Your task to perform on an android device: Go to internet settings Image 0: 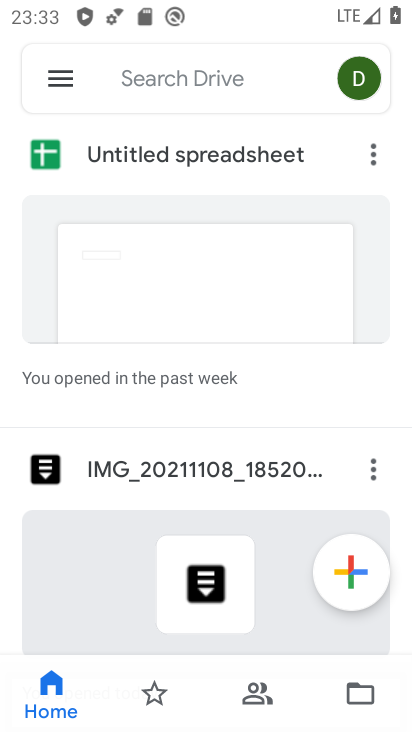
Step 0: press home button
Your task to perform on an android device: Go to internet settings Image 1: 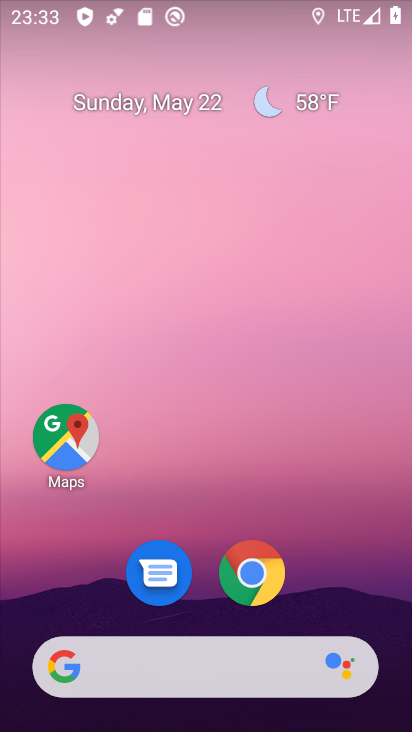
Step 1: drag from (206, 621) to (217, 1)
Your task to perform on an android device: Go to internet settings Image 2: 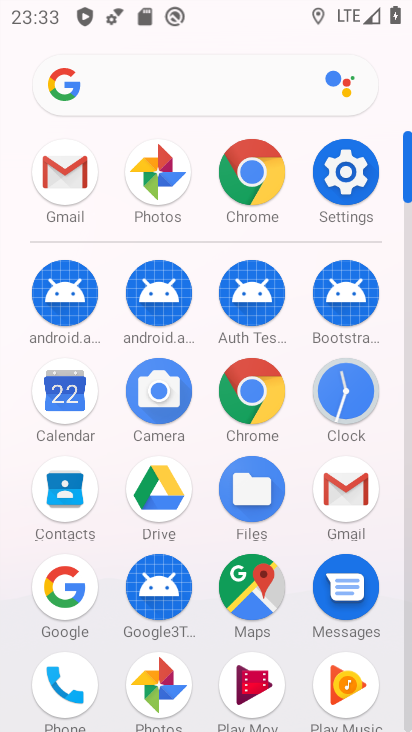
Step 2: click (356, 186)
Your task to perform on an android device: Go to internet settings Image 3: 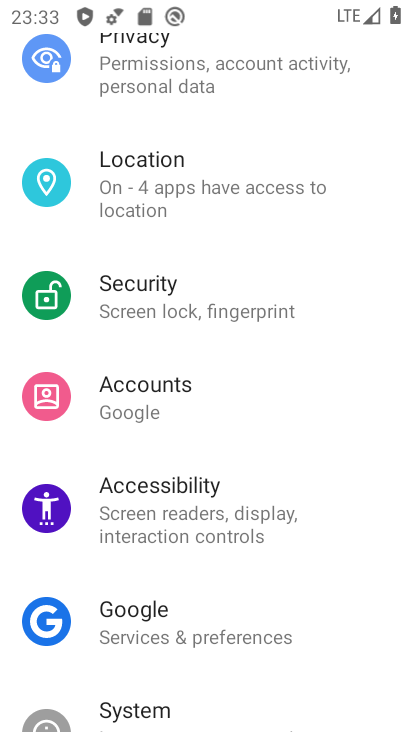
Step 3: drag from (262, 256) to (224, 653)
Your task to perform on an android device: Go to internet settings Image 4: 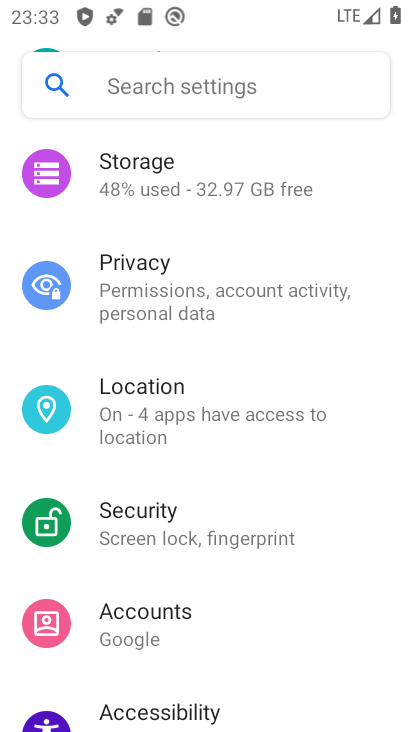
Step 4: drag from (244, 259) to (235, 458)
Your task to perform on an android device: Go to internet settings Image 5: 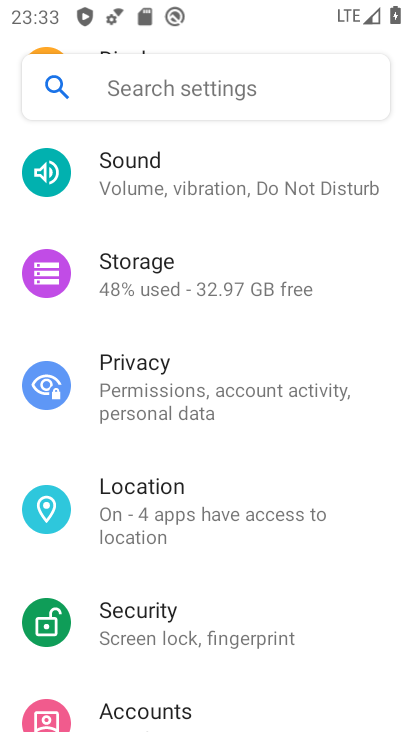
Step 5: drag from (205, 263) to (193, 603)
Your task to perform on an android device: Go to internet settings Image 6: 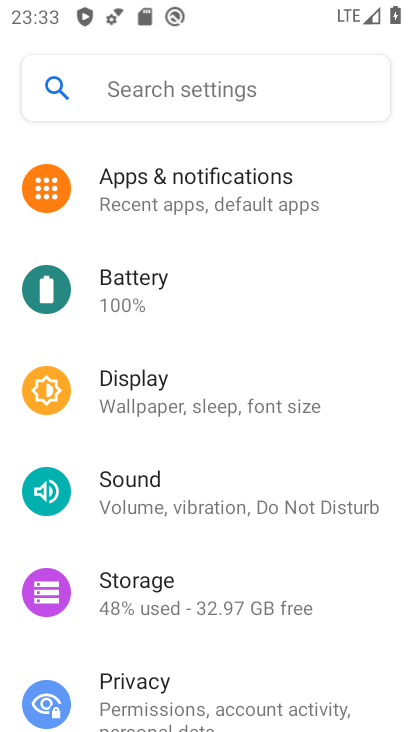
Step 6: drag from (254, 389) to (231, 564)
Your task to perform on an android device: Go to internet settings Image 7: 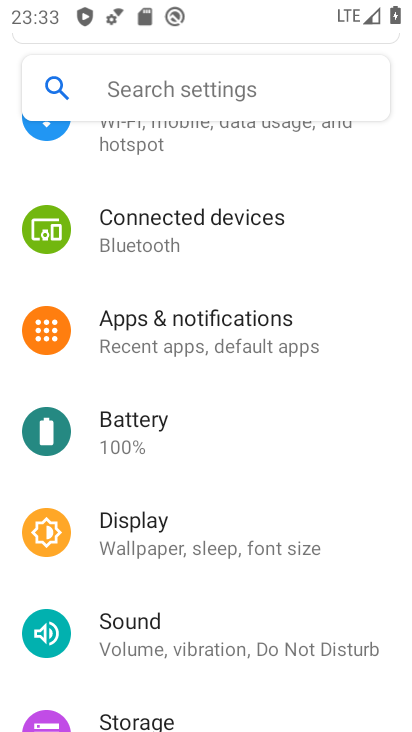
Step 7: drag from (248, 222) to (243, 479)
Your task to perform on an android device: Go to internet settings Image 8: 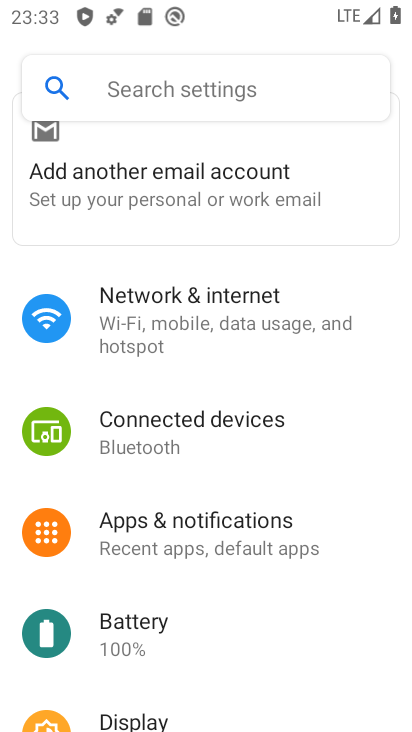
Step 8: click (225, 299)
Your task to perform on an android device: Go to internet settings Image 9: 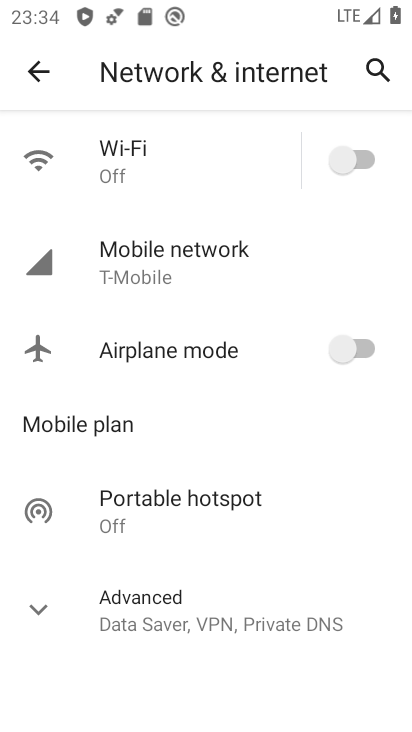
Step 9: task complete